Your task to perform on an android device: Search for seafood restaurants on Google Maps Image 0: 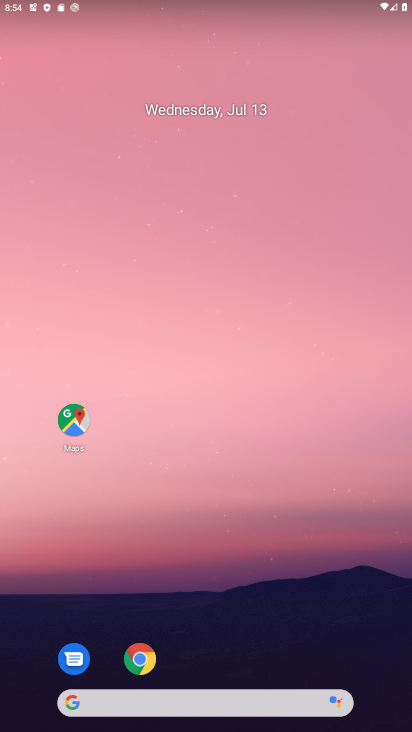
Step 0: click (74, 424)
Your task to perform on an android device: Search for seafood restaurants on Google Maps Image 1: 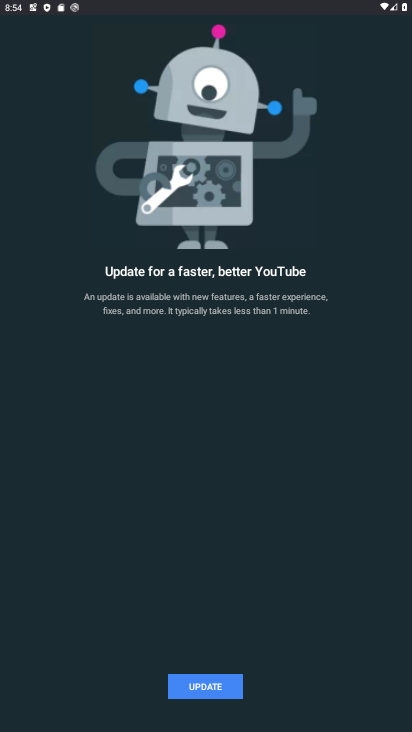
Step 1: click (185, 704)
Your task to perform on an android device: Search for seafood restaurants on Google Maps Image 2: 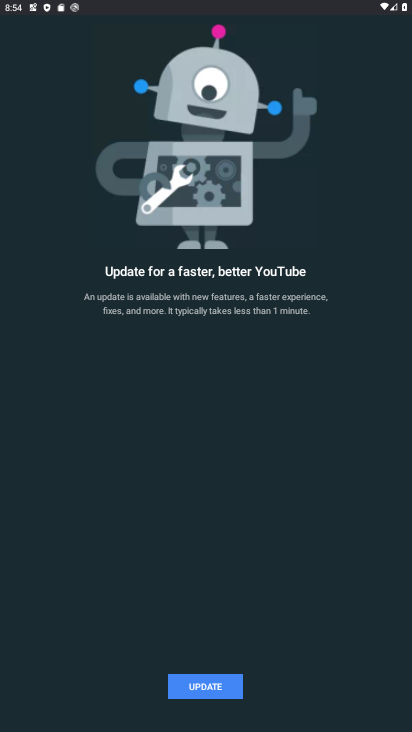
Step 2: click (207, 692)
Your task to perform on an android device: Search for seafood restaurants on Google Maps Image 3: 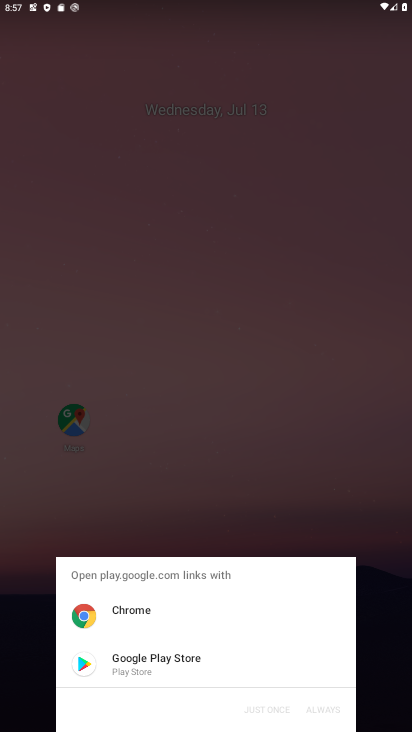
Step 3: task complete